Your task to perform on an android device: add a contact in the contacts app Image 0: 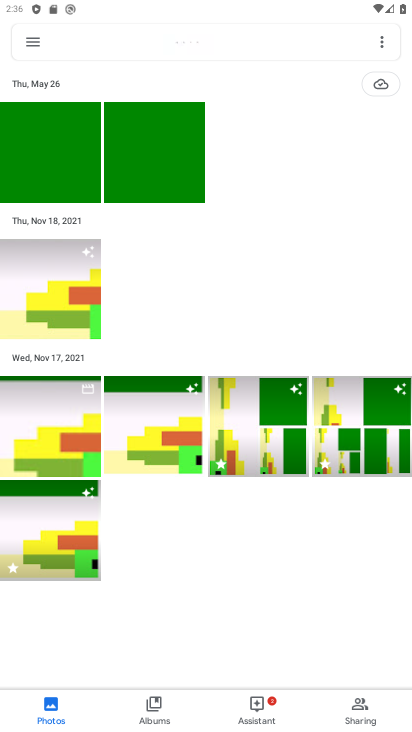
Step 0: press home button
Your task to perform on an android device: add a contact in the contacts app Image 1: 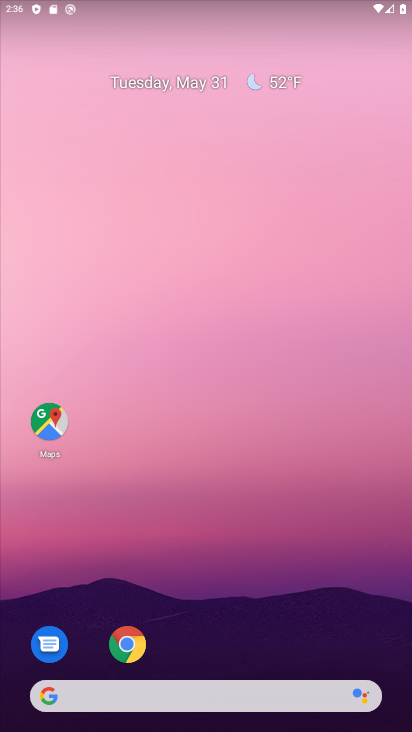
Step 1: drag from (286, 631) to (346, 143)
Your task to perform on an android device: add a contact in the contacts app Image 2: 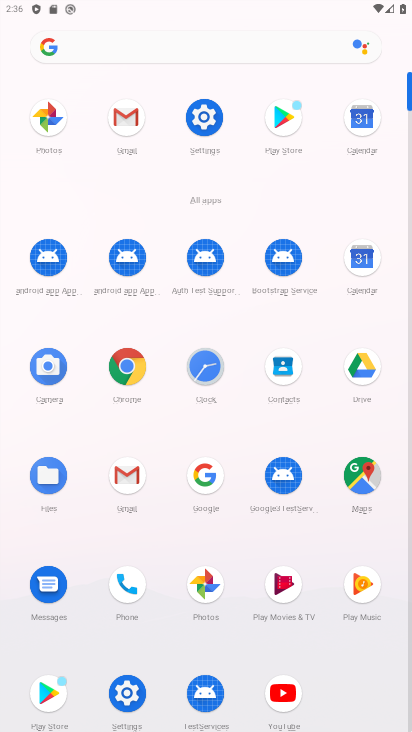
Step 2: click (287, 367)
Your task to perform on an android device: add a contact in the contacts app Image 3: 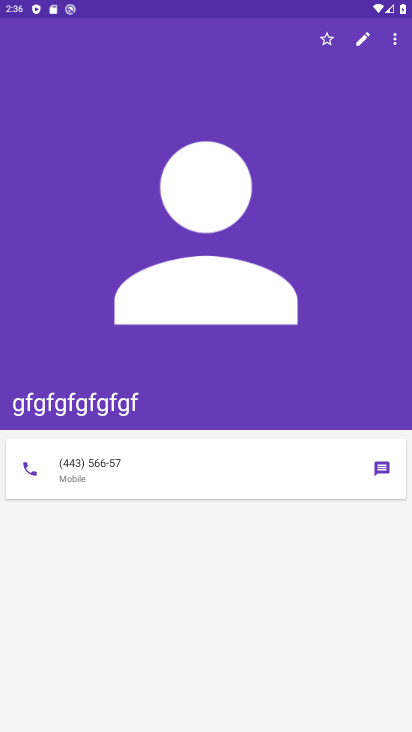
Step 3: press back button
Your task to perform on an android device: add a contact in the contacts app Image 4: 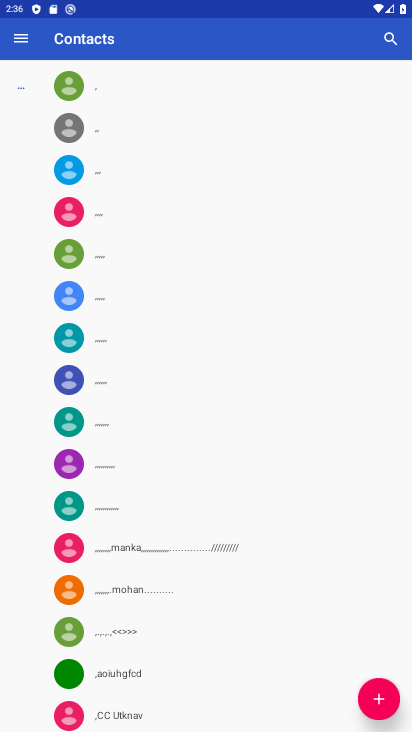
Step 4: click (375, 695)
Your task to perform on an android device: add a contact in the contacts app Image 5: 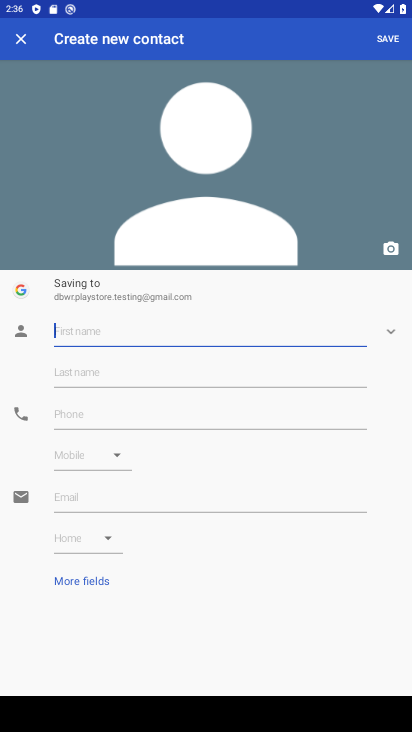
Step 5: click (123, 328)
Your task to perform on an android device: add a contact in the contacts app Image 6: 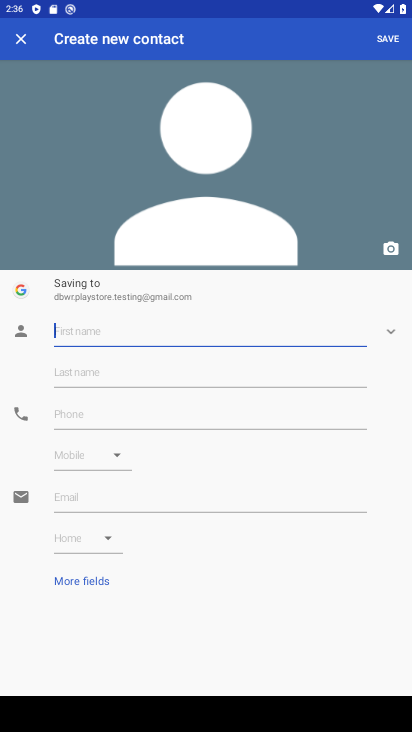
Step 6: type "dfggfhhgjggjjg"
Your task to perform on an android device: add a contact in the contacts app Image 7: 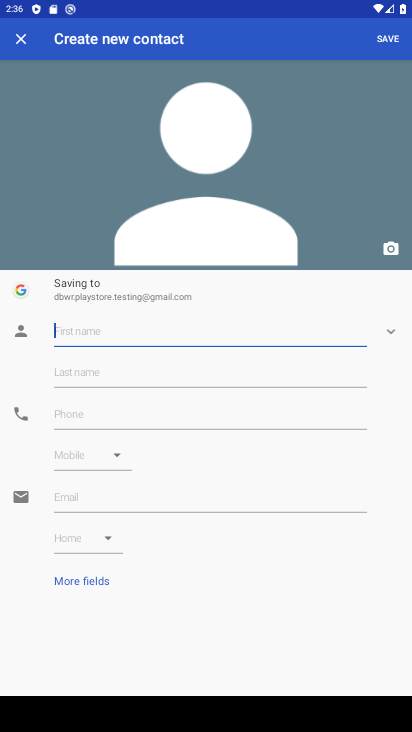
Step 7: click (173, 417)
Your task to perform on an android device: add a contact in the contacts app Image 8: 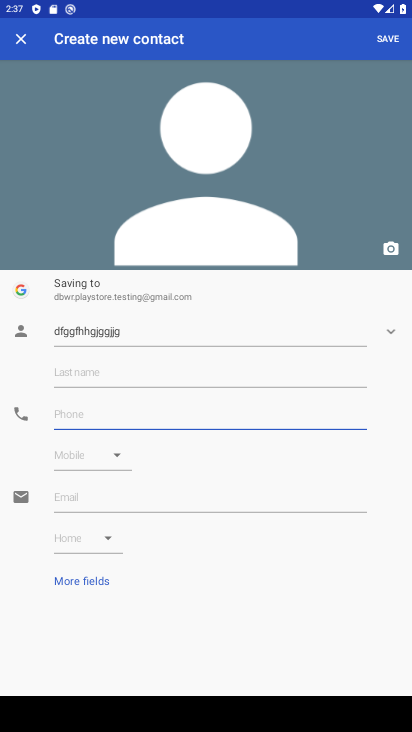
Step 8: click (153, 422)
Your task to perform on an android device: add a contact in the contacts app Image 9: 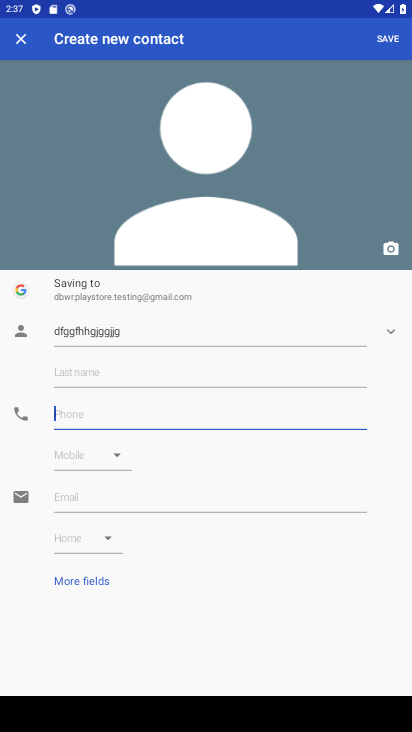
Step 9: click (236, 418)
Your task to perform on an android device: add a contact in the contacts app Image 10: 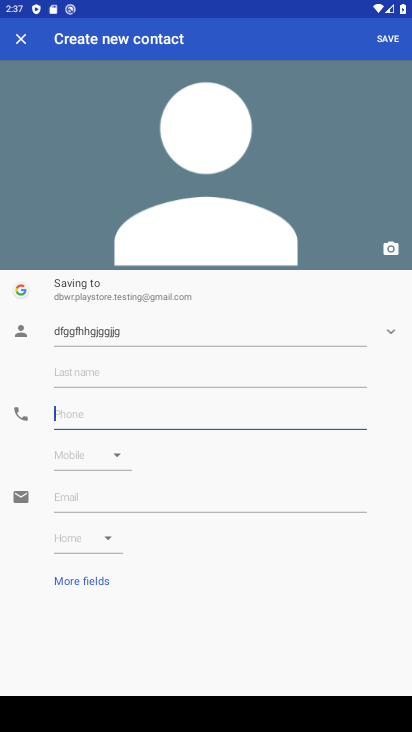
Step 10: type "32234343545667788"
Your task to perform on an android device: add a contact in the contacts app Image 11: 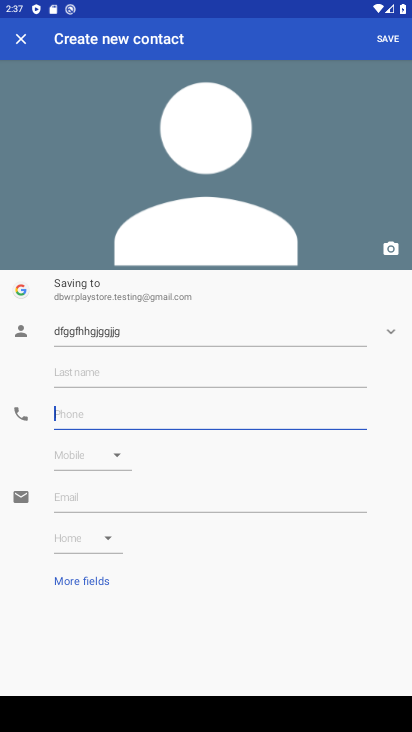
Step 11: click (130, 415)
Your task to perform on an android device: add a contact in the contacts app Image 12: 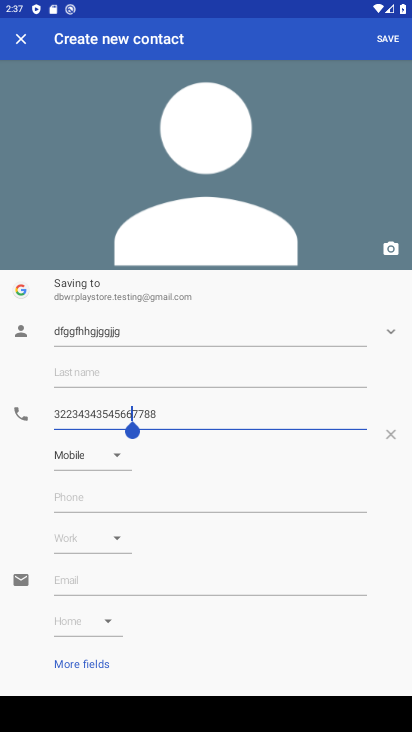
Step 12: click (111, 417)
Your task to perform on an android device: add a contact in the contacts app Image 13: 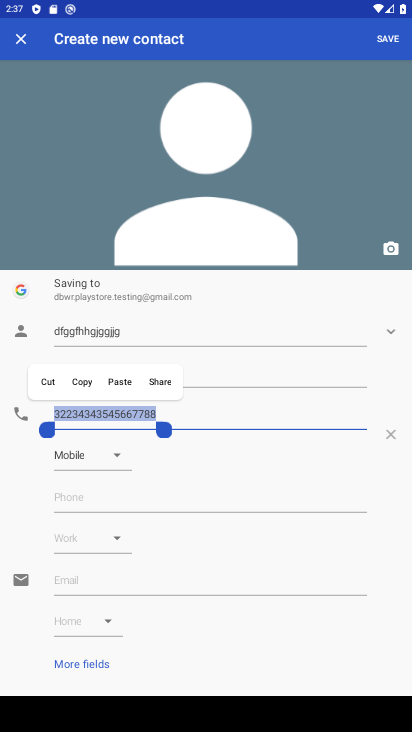
Step 13: click (390, 34)
Your task to perform on an android device: add a contact in the contacts app Image 14: 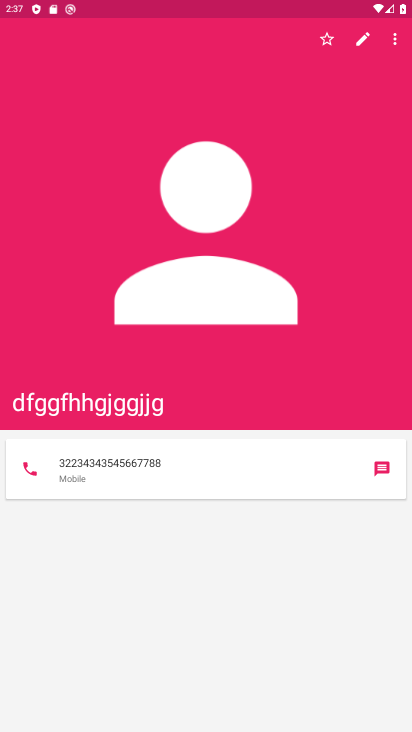
Step 14: task complete